Your task to perform on an android device: Do I have any events today? Image 0: 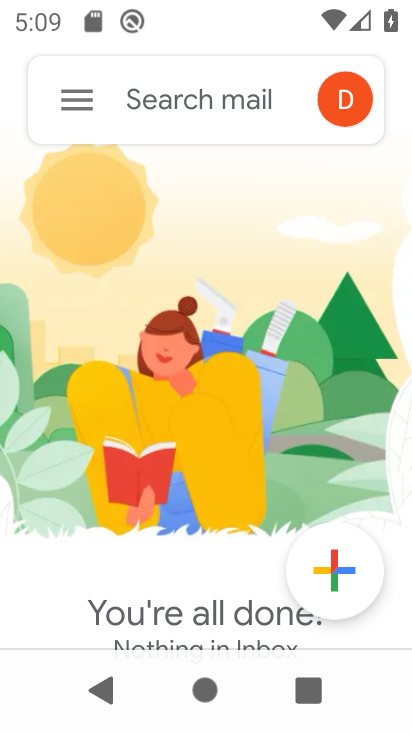
Step 0: press home button
Your task to perform on an android device: Do I have any events today? Image 1: 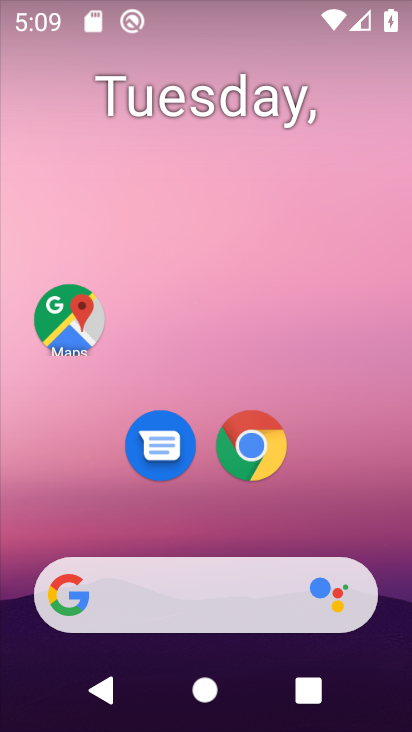
Step 1: drag from (191, 645) to (233, 0)
Your task to perform on an android device: Do I have any events today? Image 2: 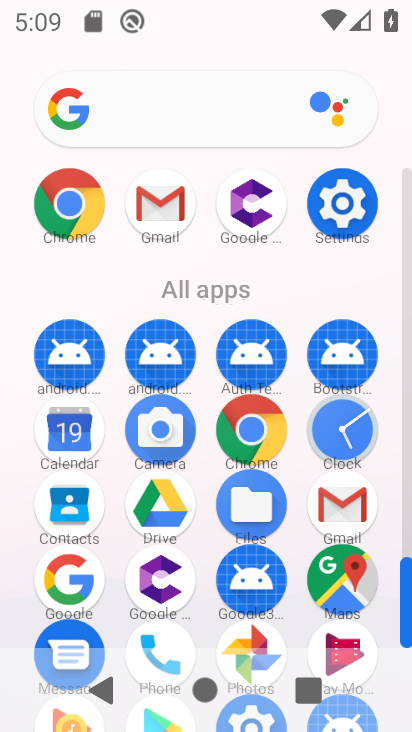
Step 2: click (70, 445)
Your task to perform on an android device: Do I have any events today? Image 3: 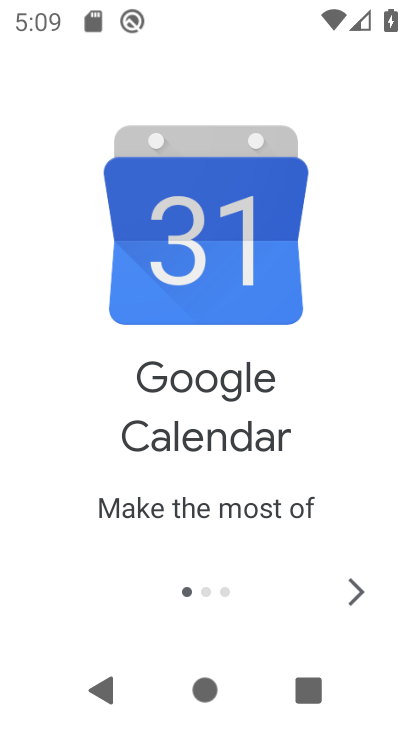
Step 3: click (354, 600)
Your task to perform on an android device: Do I have any events today? Image 4: 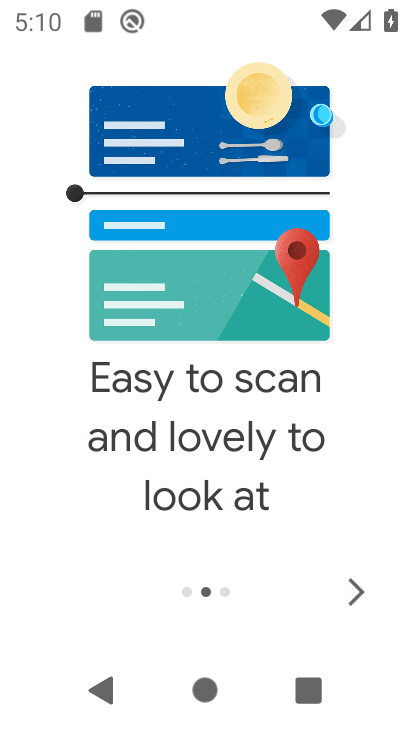
Step 4: click (346, 603)
Your task to perform on an android device: Do I have any events today? Image 5: 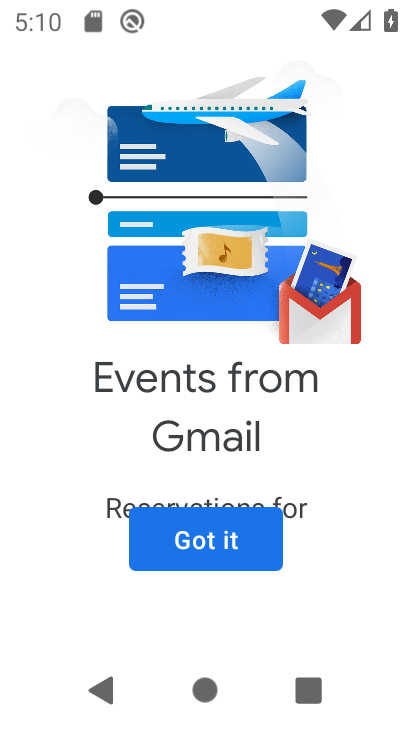
Step 5: click (252, 535)
Your task to perform on an android device: Do I have any events today? Image 6: 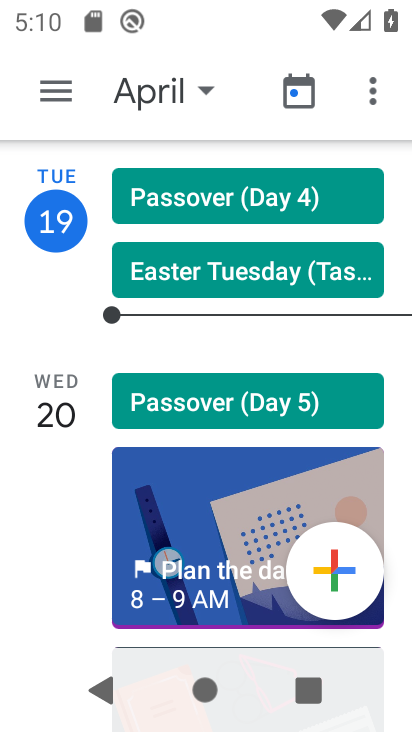
Step 6: click (140, 97)
Your task to perform on an android device: Do I have any events today? Image 7: 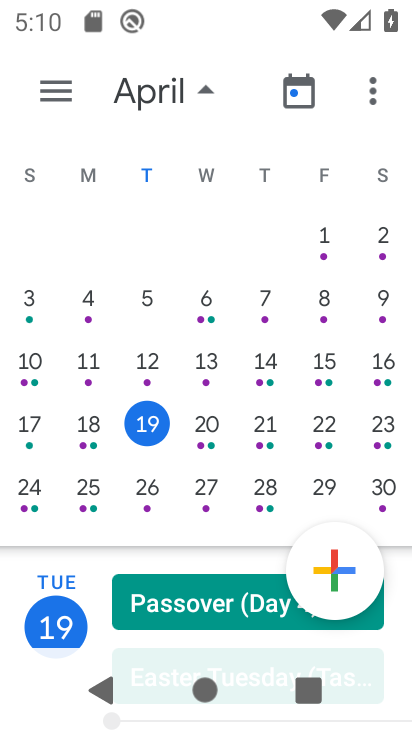
Step 7: task complete